Your task to perform on an android device: Open internet settings Image 0: 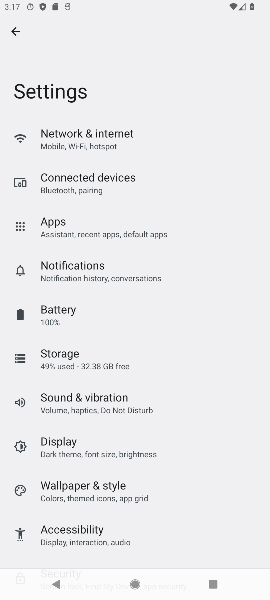
Step 0: click (82, 133)
Your task to perform on an android device: Open internet settings Image 1: 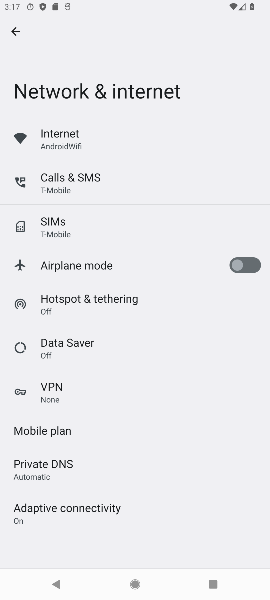
Step 1: task complete